Your task to perform on an android device: turn on data saver in the chrome app Image 0: 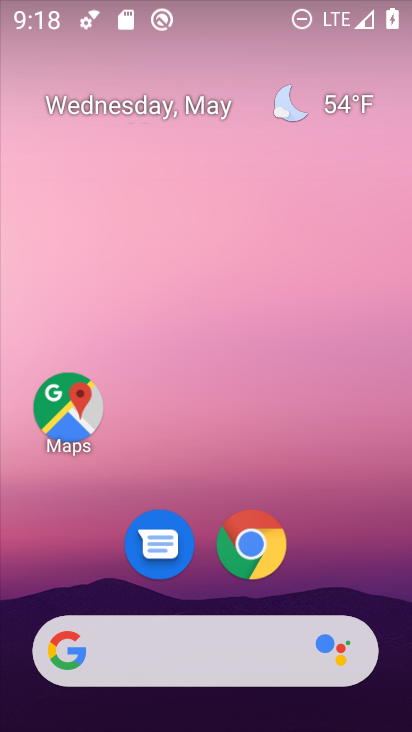
Step 0: click (248, 547)
Your task to perform on an android device: turn on data saver in the chrome app Image 1: 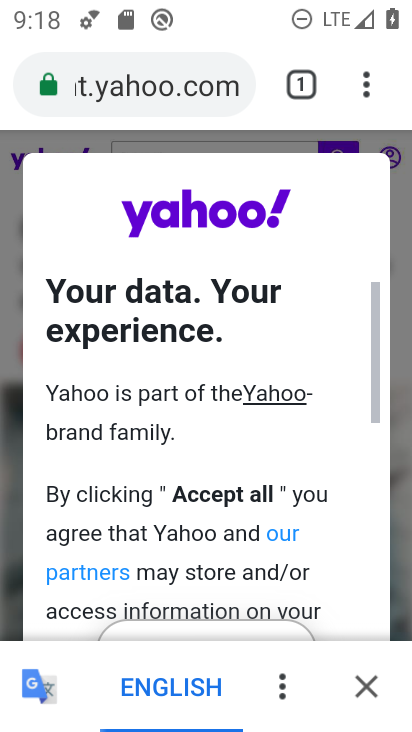
Step 1: click (375, 85)
Your task to perform on an android device: turn on data saver in the chrome app Image 2: 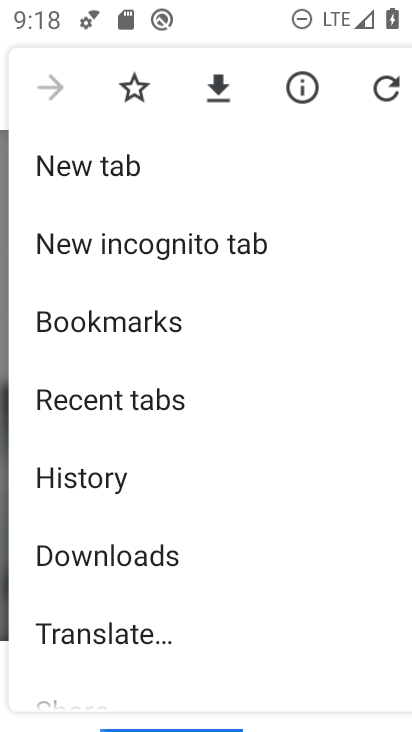
Step 2: drag from (163, 604) to (189, 77)
Your task to perform on an android device: turn on data saver in the chrome app Image 3: 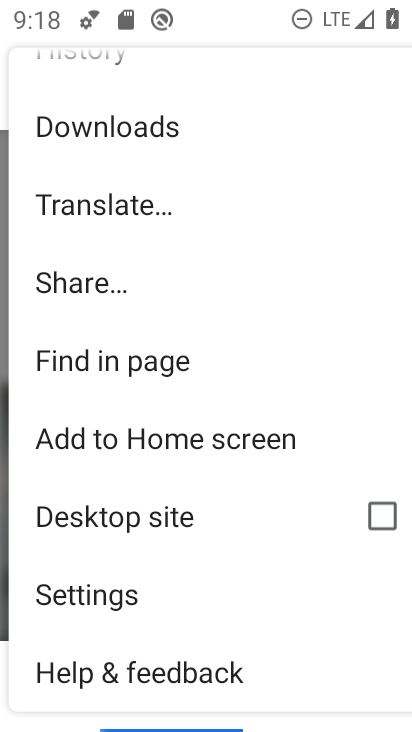
Step 3: click (129, 602)
Your task to perform on an android device: turn on data saver in the chrome app Image 4: 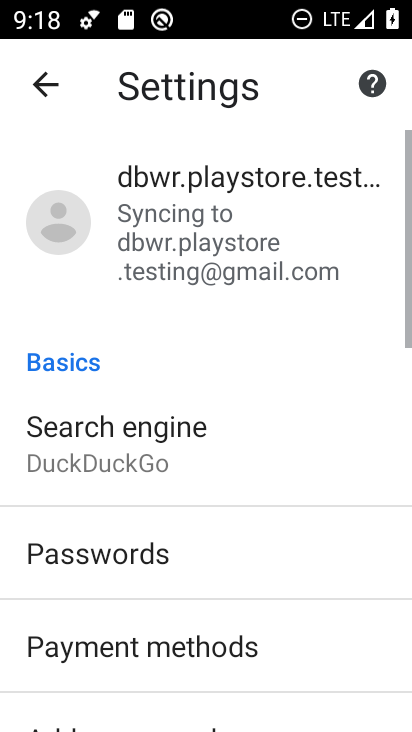
Step 4: drag from (168, 622) to (205, 82)
Your task to perform on an android device: turn on data saver in the chrome app Image 5: 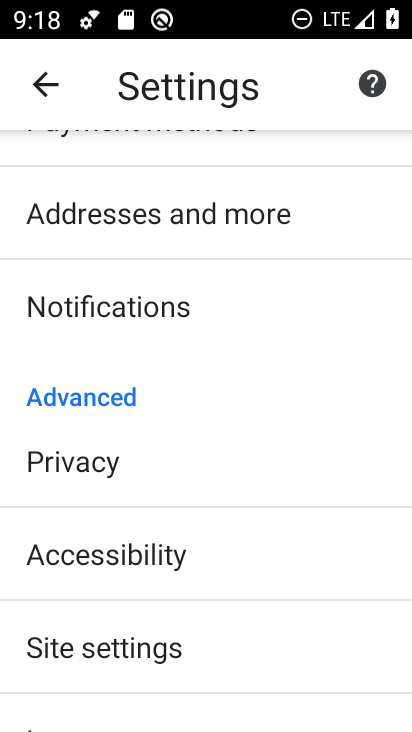
Step 5: drag from (172, 572) to (231, 184)
Your task to perform on an android device: turn on data saver in the chrome app Image 6: 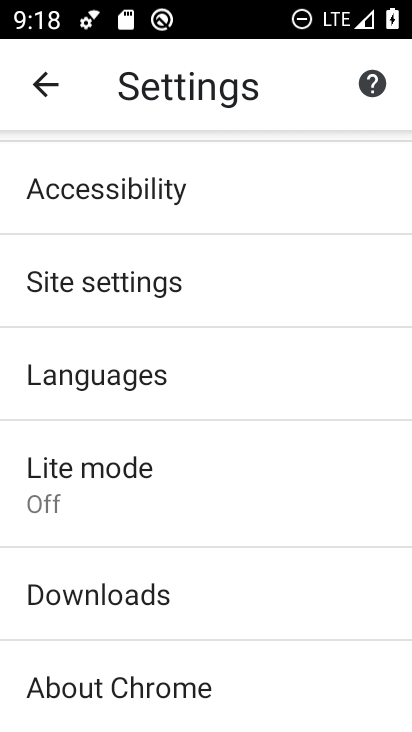
Step 6: click (134, 480)
Your task to perform on an android device: turn on data saver in the chrome app Image 7: 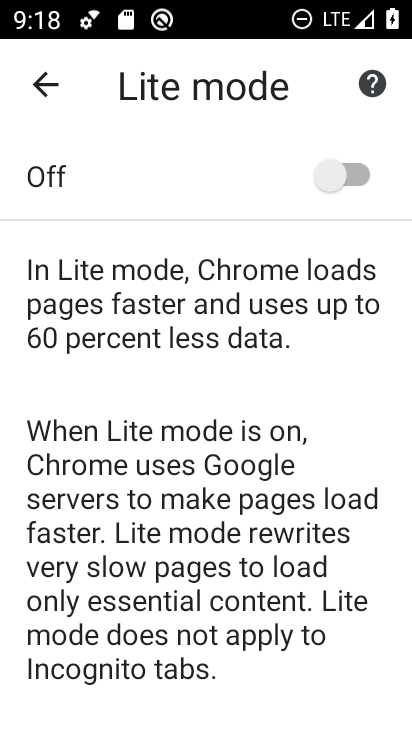
Step 7: click (366, 177)
Your task to perform on an android device: turn on data saver in the chrome app Image 8: 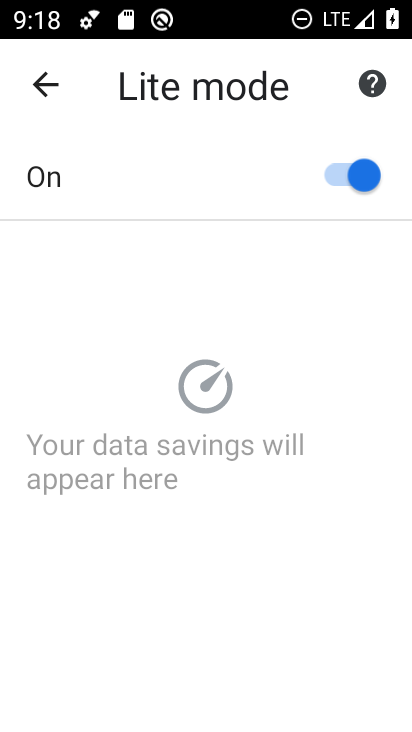
Step 8: task complete